Your task to perform on an android device: turn on priority inbox in the gmail app Image 0: 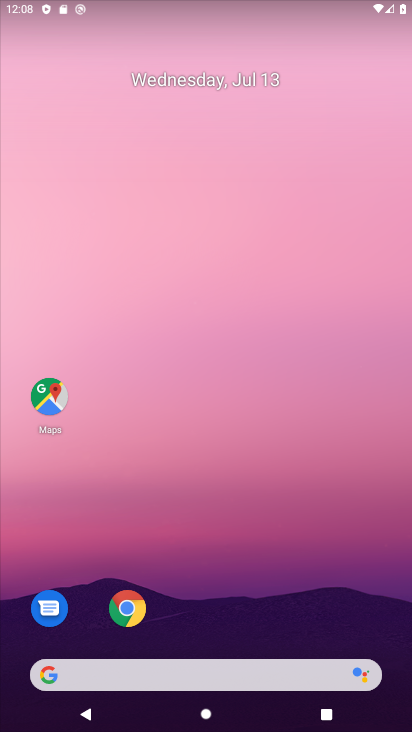
Step 0: drag from (189, 644) to (233, 224)
Your task to perform on an android device: turn on priority inbox in the gmail app Image 1: 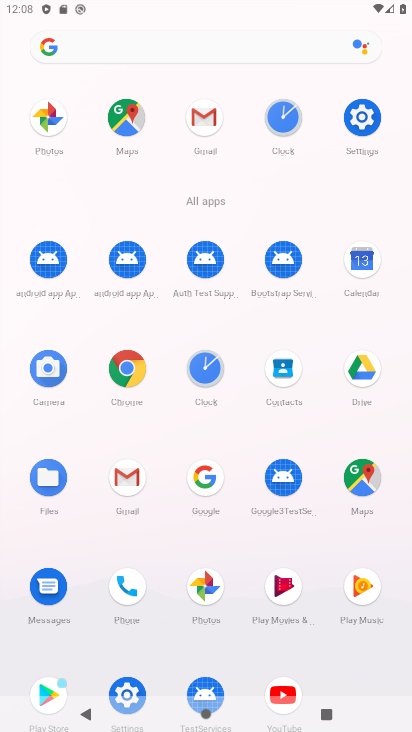
Step 1: click (136, 486)
Your task to perform on an android device: turn on priority inbox in the gmail app Image 2: 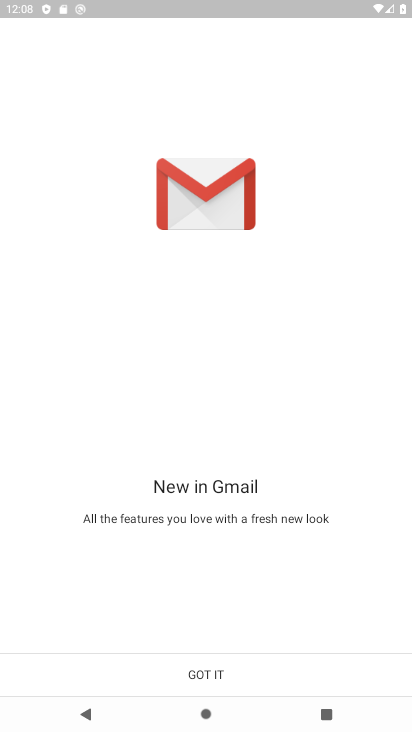
Step 2: click (197, 675)
Your task to perform on an android device: turn on priority inbox in the gmail app Image 3: 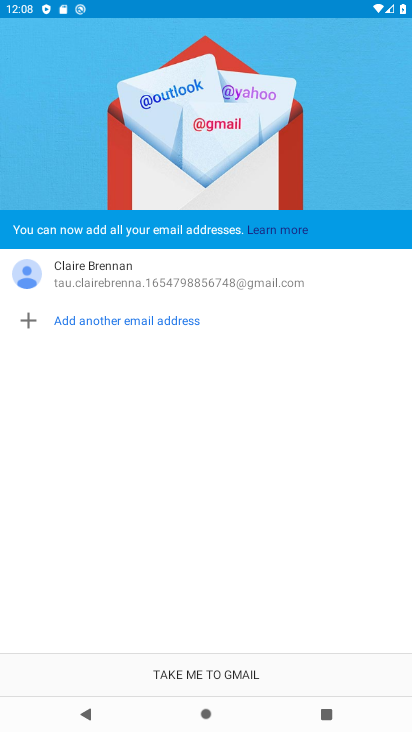
Step 3: click (253, 679)
Your task to perform on an android device: turn on priority inbox in the gmail app Image 4: 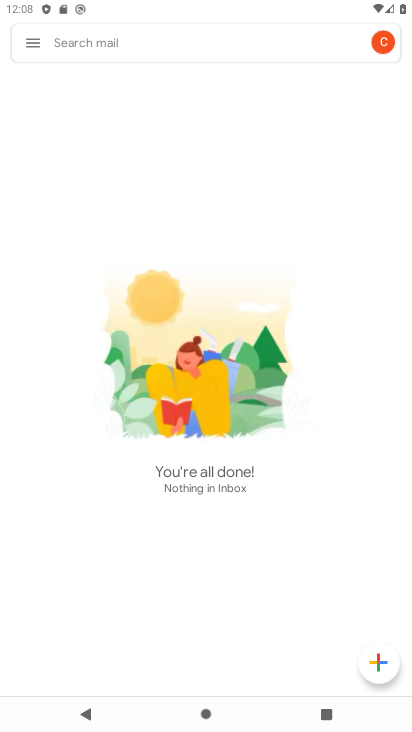
Step 4: click (32, 40)
Your task to perform on an android device: turn on priority inbox in the gmail app Image 5: 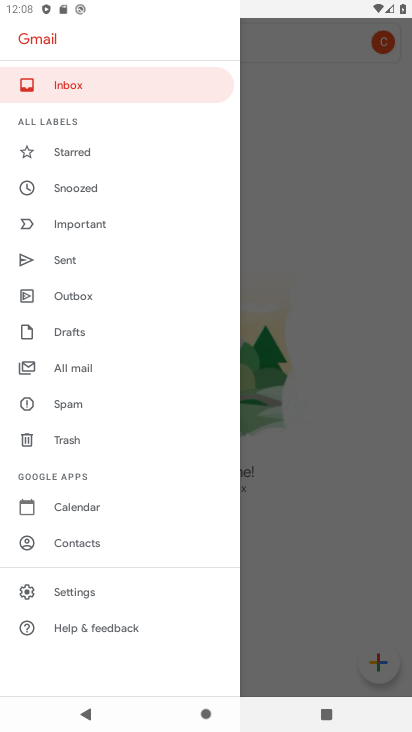
Step 5: drag from (60, 607) to (110, 244)
Your task to perform on an android device: turn on priority inbox in the gmail app Image 6: 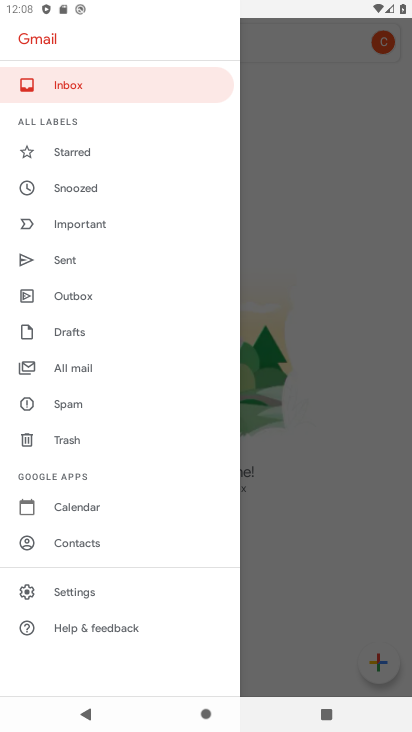
Step 6: click (104, 585)
Your task to perform on an android device: turn on priority inbox in the gmail app Image 7: 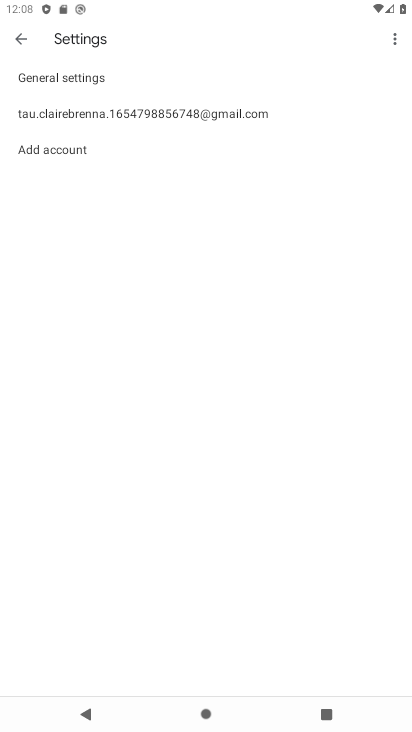
Step 7: click (158, 121)
Your task to perform on an android device: turn on priority inbox in the gmail app Image 8: 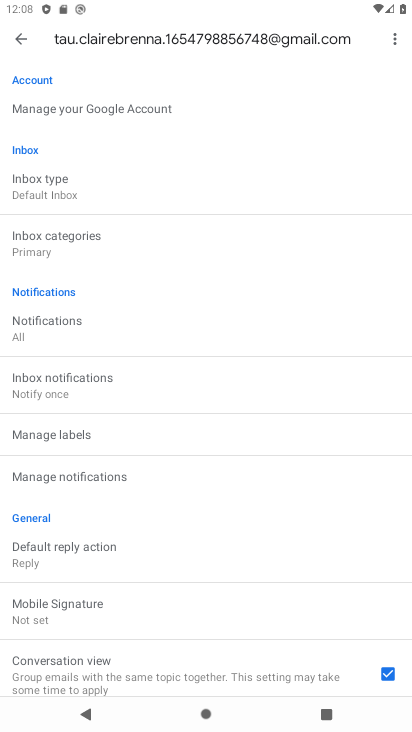
Step 8: click (95, 189)
Your task to perform on an android device: turn on priority inbox in the gmail app Image 9: 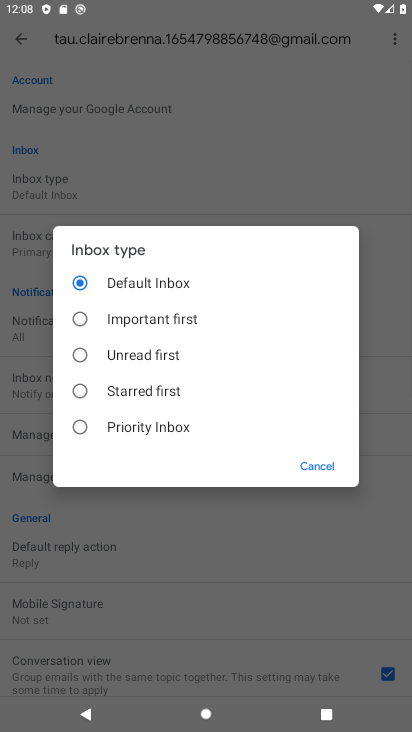
Step 9: click (141, 422)
Your task to perform on an android device: turn on priority inbox in the gmail app Image 10: 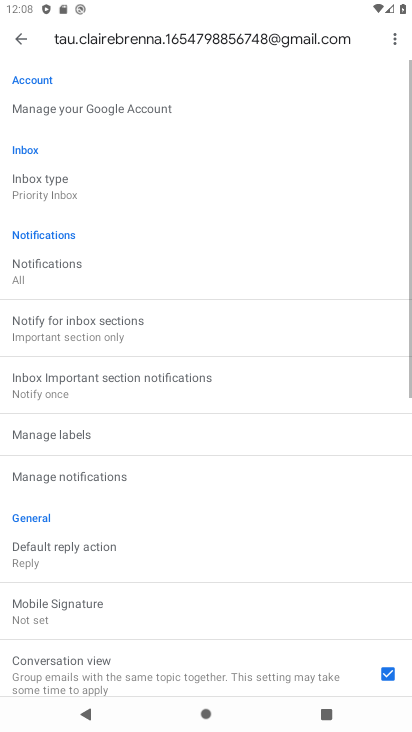
Step 10: task complete